Your task to perform on an android device: What's the weather today? Image 0: 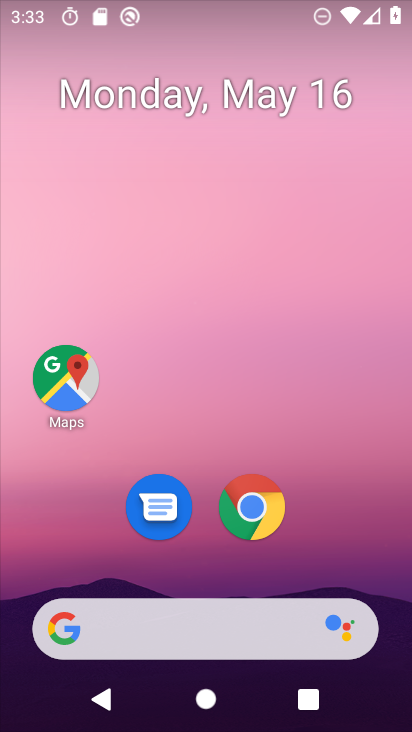
Step 0: drag from (342, 501) to (8, 57)
Your task to perform on an android device: What's the weather today? Image 1: 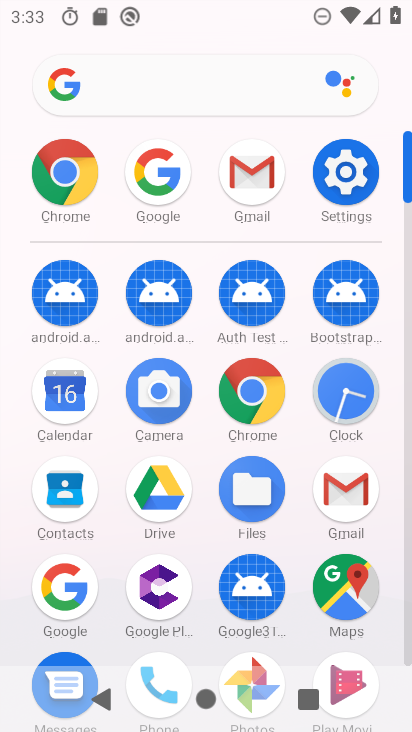
Step 1: press home button
Your task to perform on an android device: What's the weather today? Image 2: 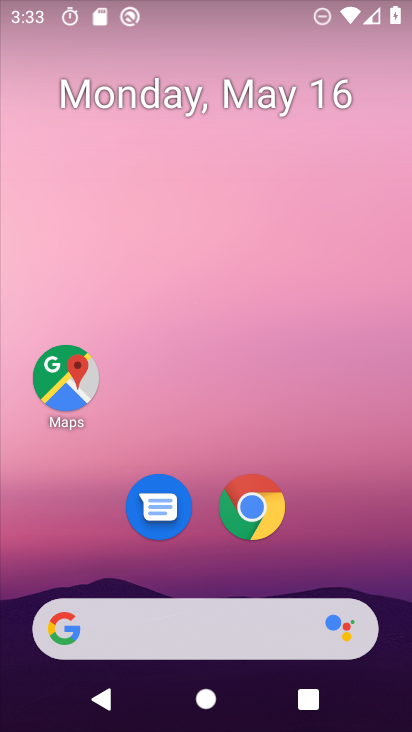
Step 2: click (76, 629)
Your task to perform on an android device: What's the weather today? Image 3: 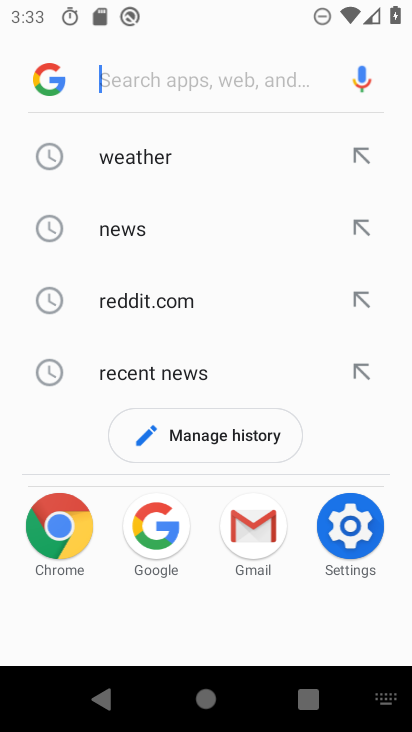
Step 3: click (53, 60)
Your task to perform on an android device: What's the weather today? Image 4: 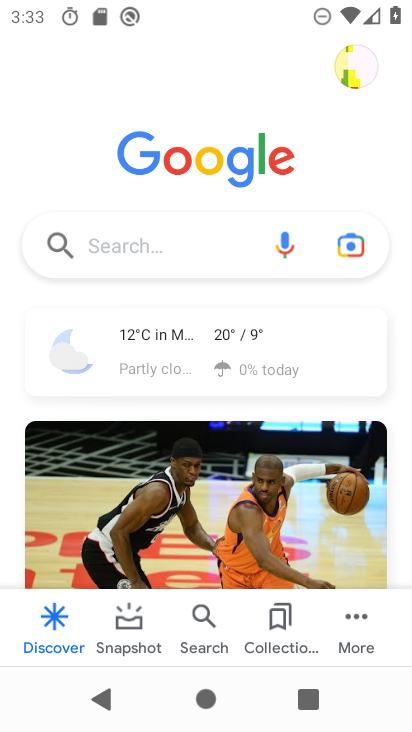
Step 4: click (204, 355)
Your task to perform on an android device: What's the weather today? Image 5: 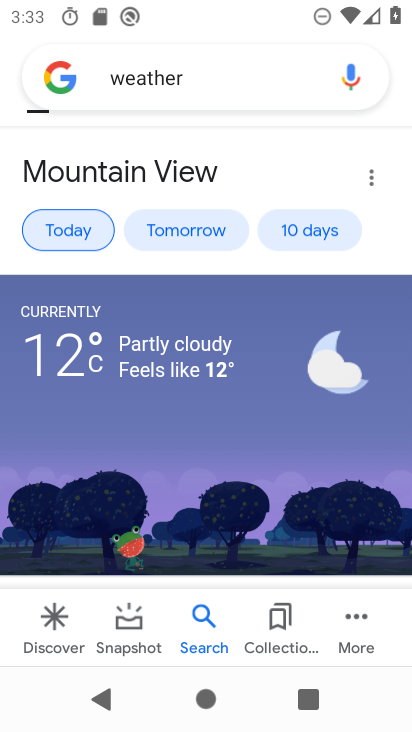
Step 5: task complete